Your task to perform on an android device: Open maps Image 0: 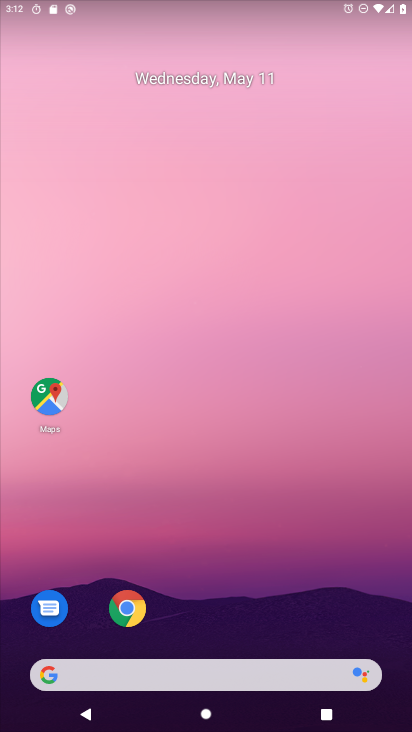
Step 0: drag from (177, 669) to (300, 0)
Your task to perform on an android device: Open maps Image 1: 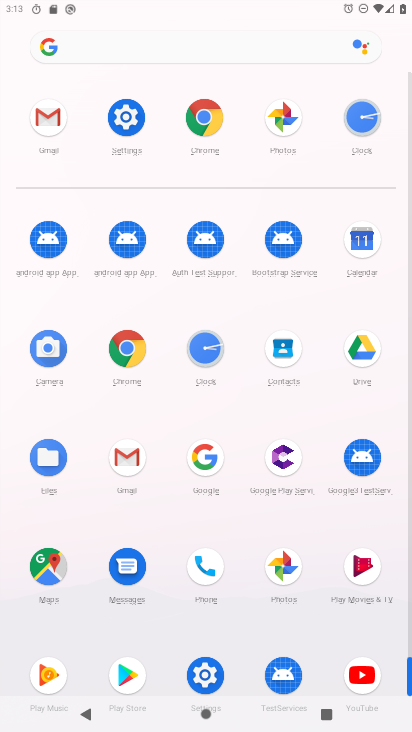
Step 1: click (51, 564)
Your task to perform on an android device: Open maps Image 2: 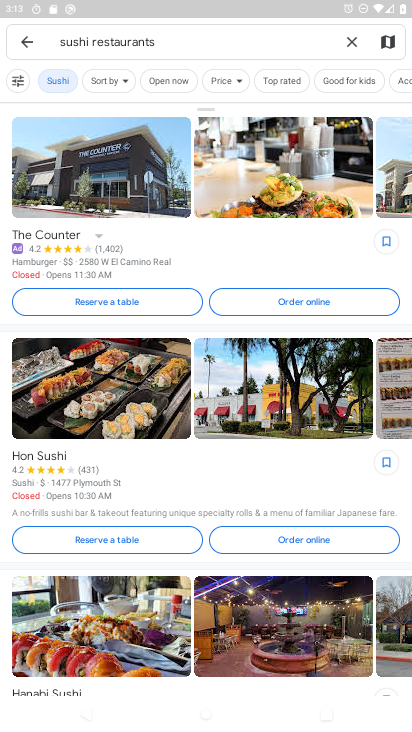
Step 2: task complete